Your task to perform on an android device: Open eBay Image 0: 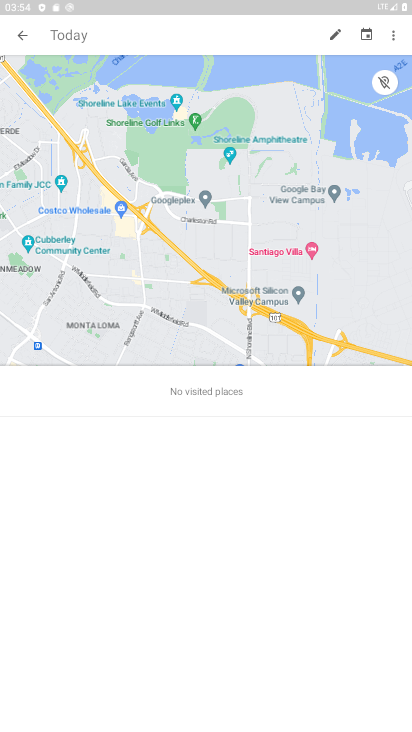
Step 0: press home button
Your task to perform on an android device: Open eBay Image 1: 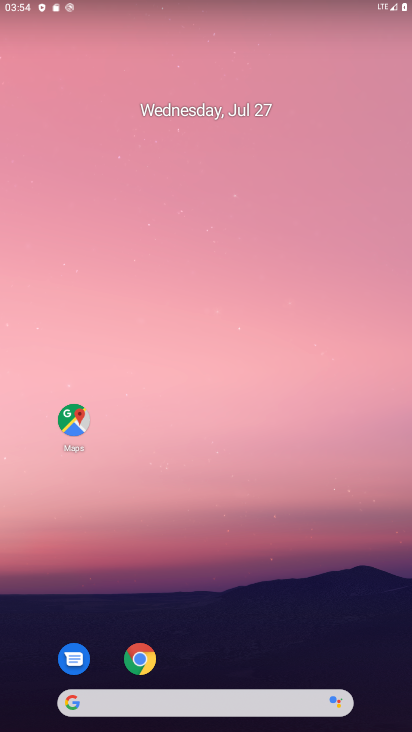
Step 1: click (142, 698)
Your task to perform on an android device: Open eBay Image 2: 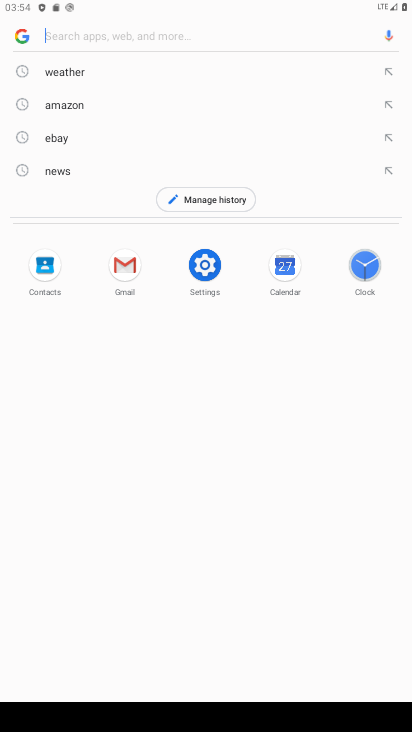
Step 2: click (60, 141)
Your task to perform on an android device: Open eBay Image 3: 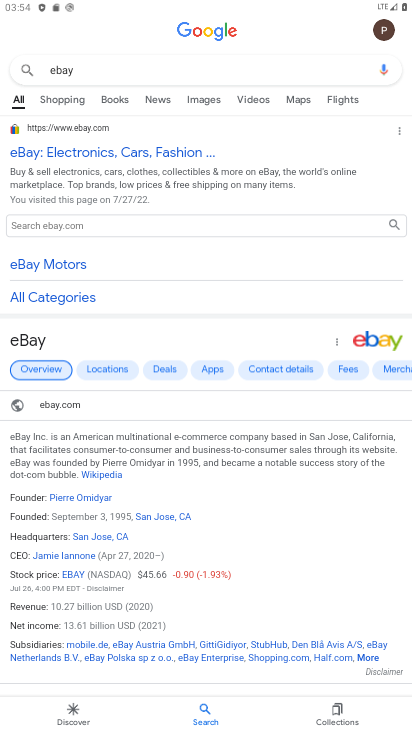
Step 3: click (49, 156)
Your task to perform on an android device: Open eBay Image 4: 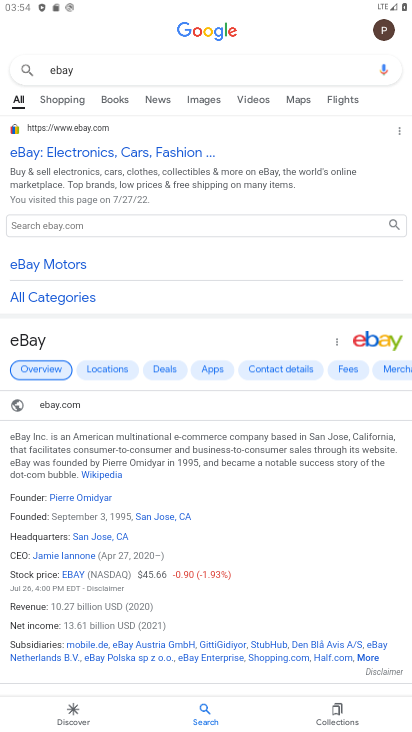
Step 4: click (33, 162)
Your task to perform on an android device: Open eBay Image 5: 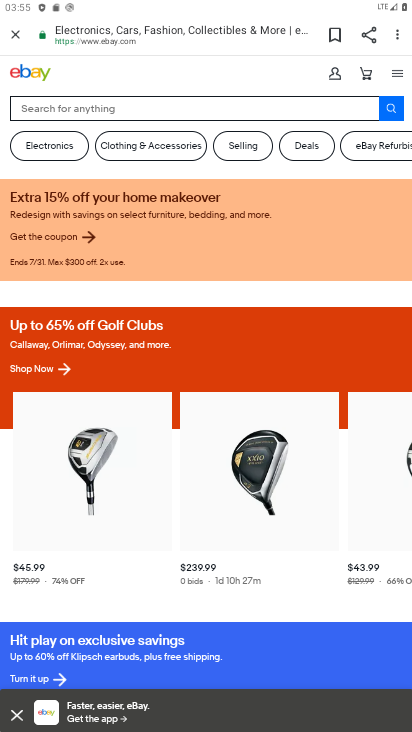
Step 5: task complete